Your task to perform on an android device: find photos in the google photos app Image 0: 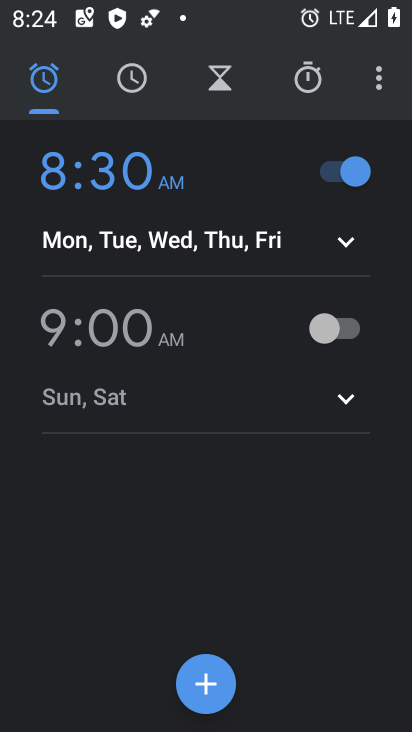
Step 0: press back button
Your task to perform on an android device: find photos in the google photos app Image 1: 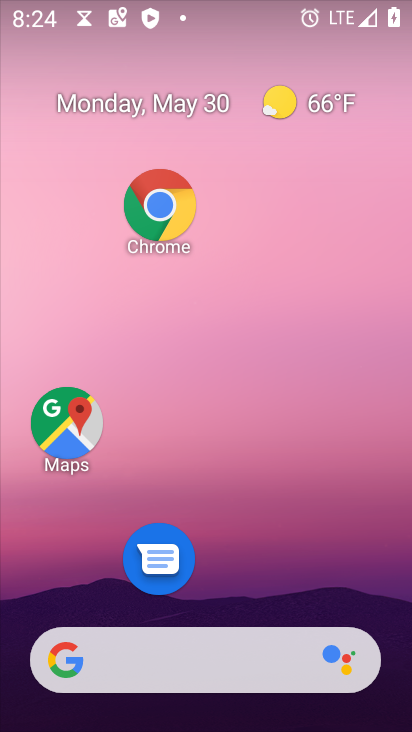
Step 1: drag from (270, 651) to (267, 399)
Your task to perform on an android device: find photos in the google photos app Image 2: 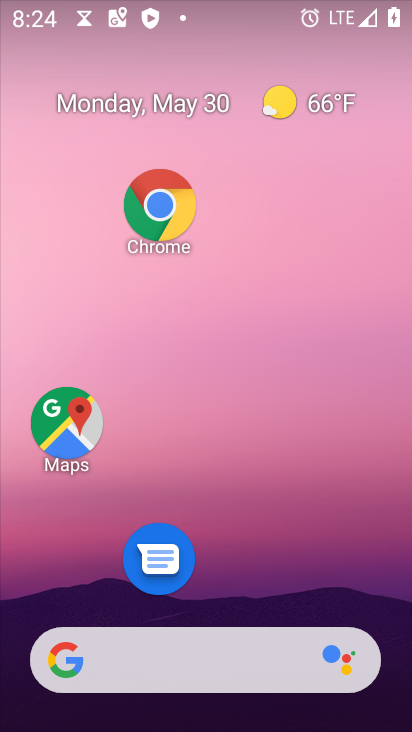
Step 2: drag from (271, 621) to (253, 247)
Your task to perform on an android device: find photos in the google photos app Image 3: 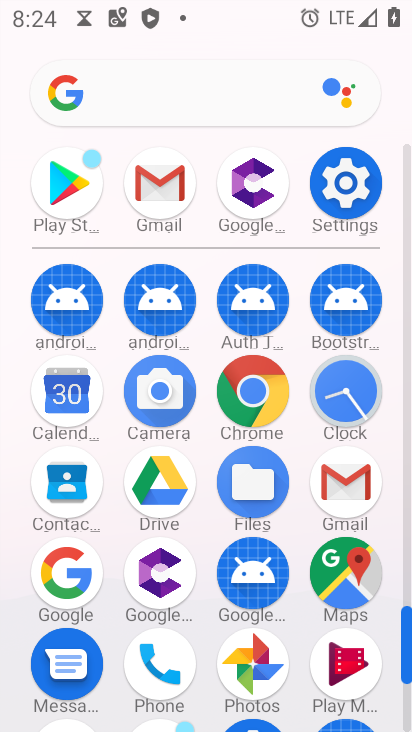
Step 3: click (253, 666)
Your task to perform on an android device: find photos in the google photos app Image 4: 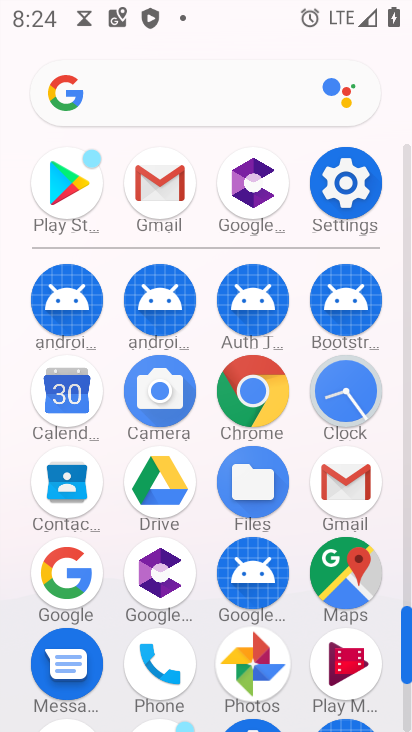
Step 4: click (252, 667)
Your task to perform on an android device: find photos in the google photos app Image 5: 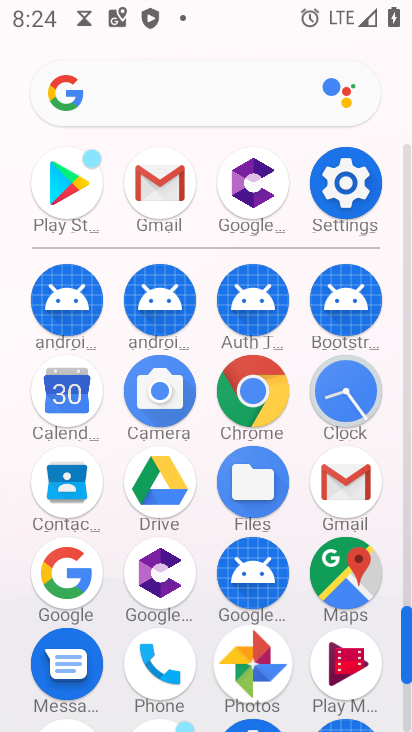
Step 5: click (252, 667)
Your task to perform on an android device: find photos in the google photos app Image 6: 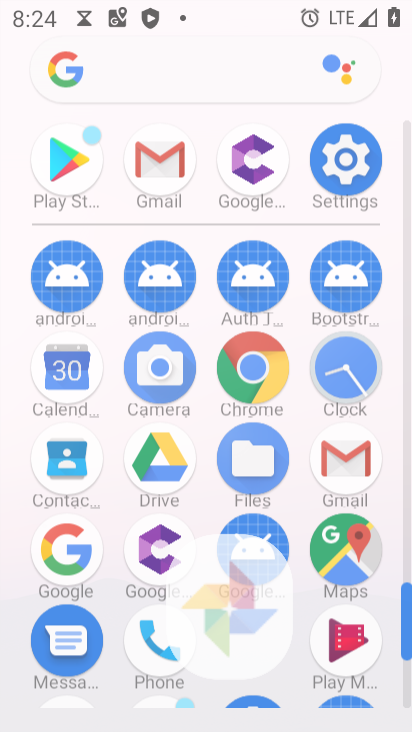
Step 6: click (252, 667)
Your task to perform on an android device: find photos in the google photos app Image 7: 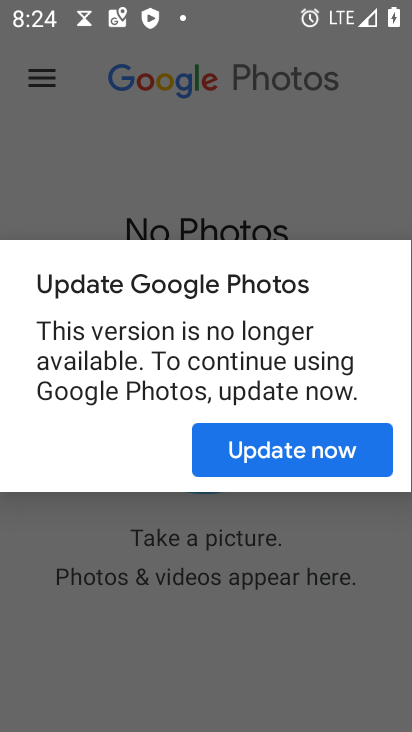
Step 7: press back button
Your task to perform on an android device: find photos in the google photos app Image 8: 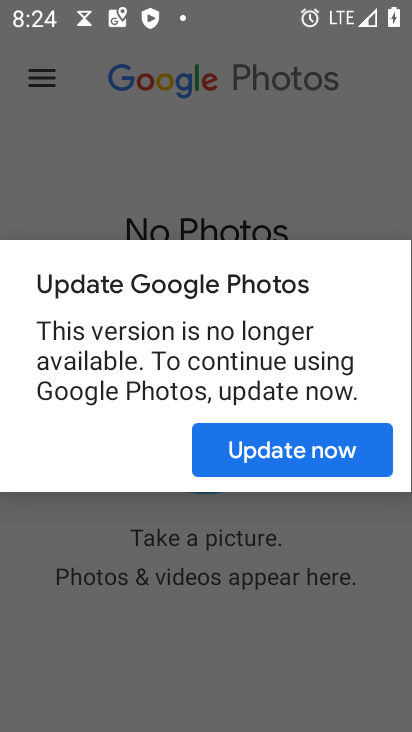
Step 8: press back button
Your task to perform on an android device: find photos in the google photos app Image 9: 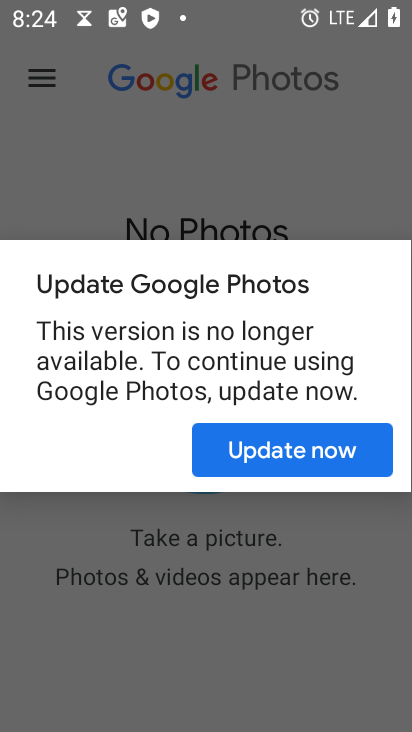
Step 9: press back button
Your task to perform on an android device: find photos in the google photos app Image 10: 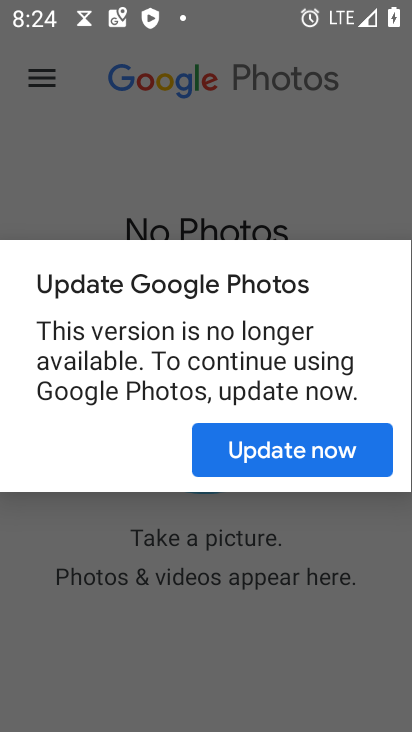
Step 10: press home button
Your task to perform on an android device: find photos in the google photos app Image 11: 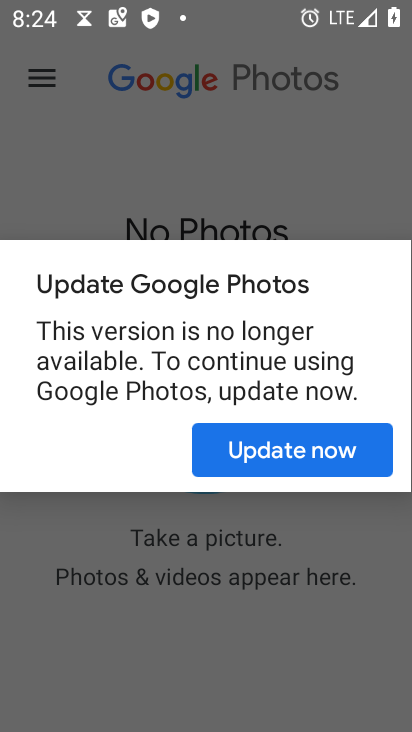
Step 11: press home button
Your task to perform on an android device: find photos in the google photos app Image 12: 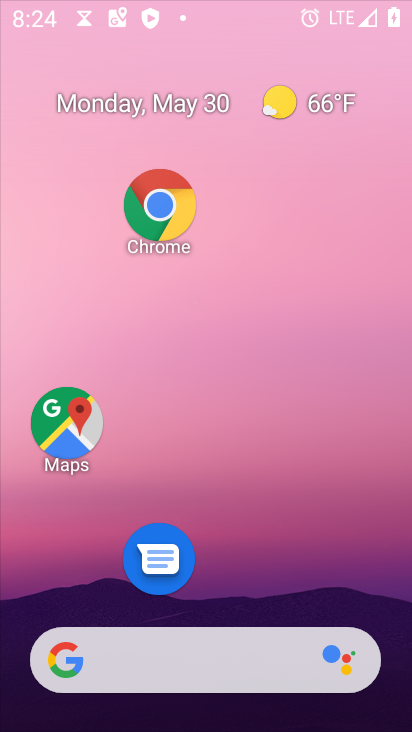
Step 12: press home button
Your task to perform on an android device: find photos in the google photos app Image 13: 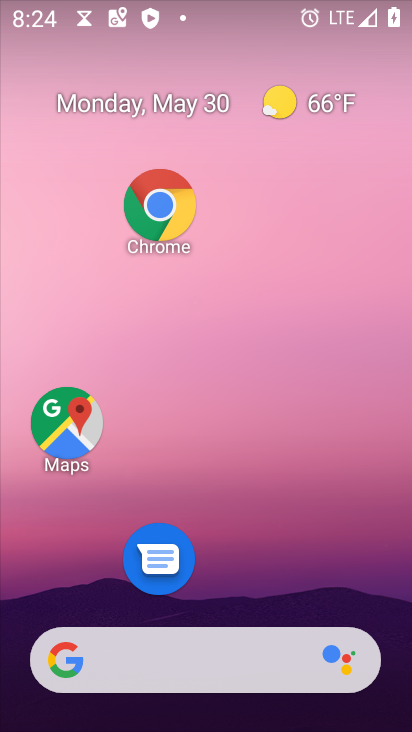
Step 13: drag from (247, 700) to (256, 46)
Your task to perform on an android device: find photos in the google photos app Image 14: 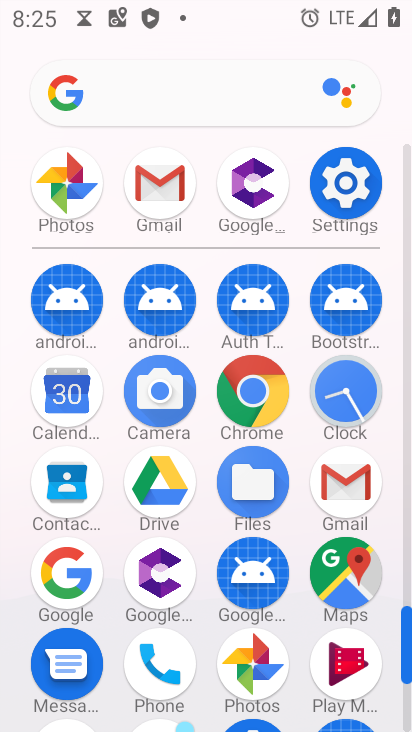
Step 14: click (259, 657)
Your task to perform on an android device: find photos in the google photos app Image 15: 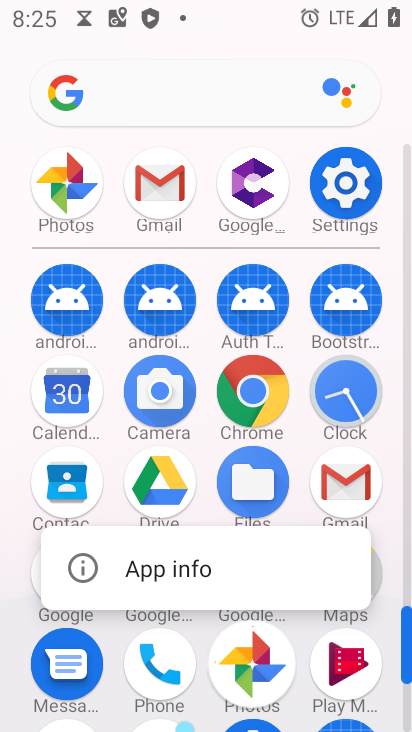
Step 15: click (256, 658)
Your task to perform on an android device: find photos in the google photos app Image 16: 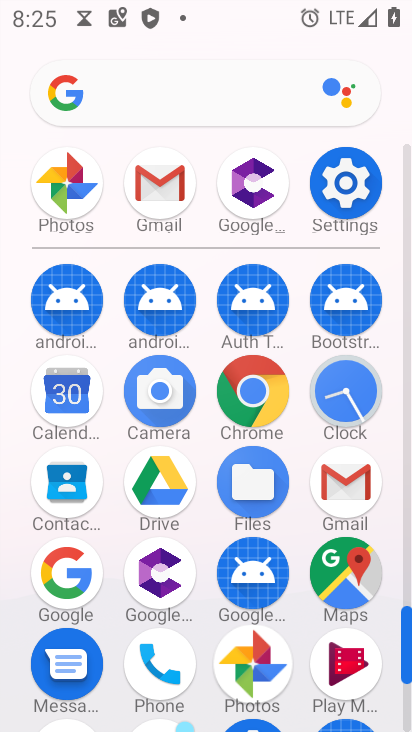
Step 16: click (241, 662)
Your task to perform on an android device: find photos in the google photos app Image 17: 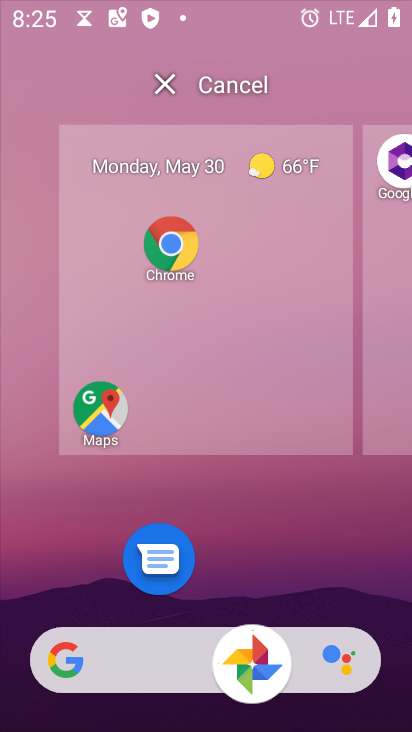
Step 17: click (220, 654)
Your task to perform on an android device: find photos in the google photos app Image 18: 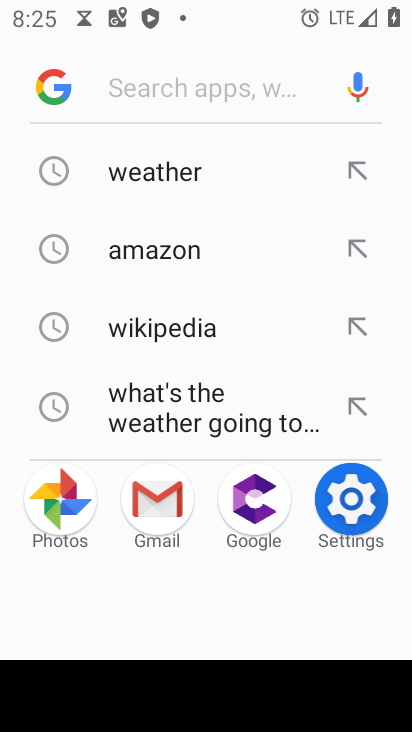
Step 18: press back button
Your task to perform on an android device: find photos in the google photos app Image 19: 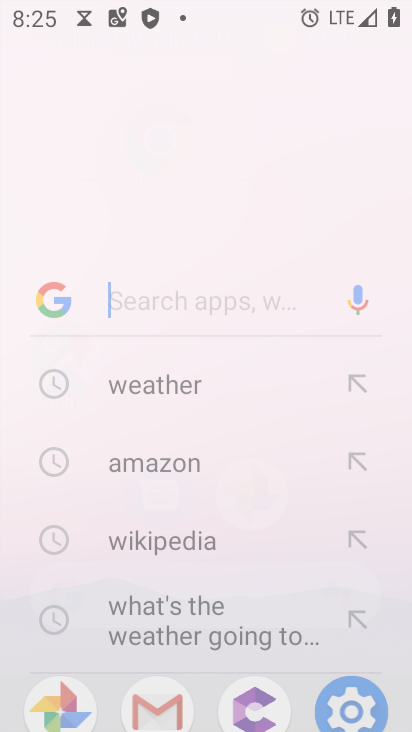
Step 19: press back button
Your task to perform on an android device: find photos in the google photos app Image 20: 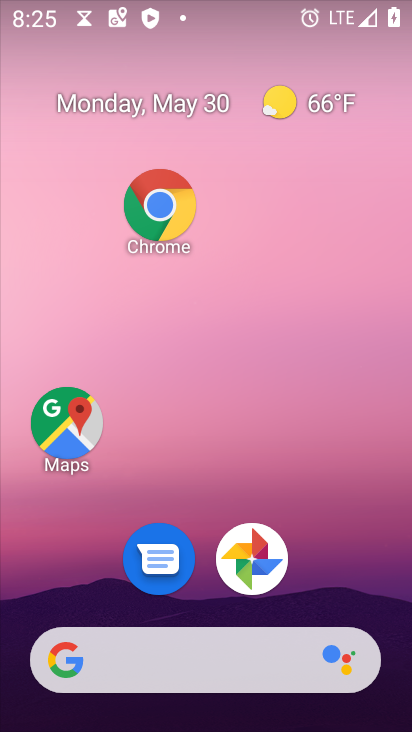
Step 20: drag from (322, 507) to (251, 385)
Your task to perform on an android device: find photos in the google photos app Image 21: 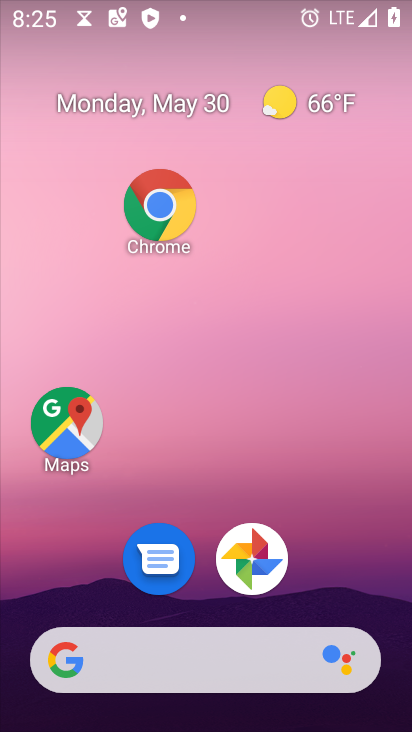
Step 21: drag from (238, 661) to (219, 391)
Your task to perform on an android device: find photos in the google photos app Image 22: 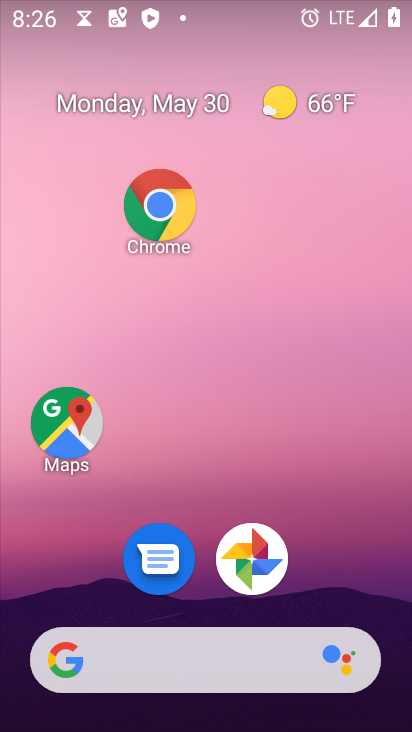
Step 22: drag from (237, 688) to (186, 235)
Your task to perform on an android device: find photos in the google photos app Image 23: 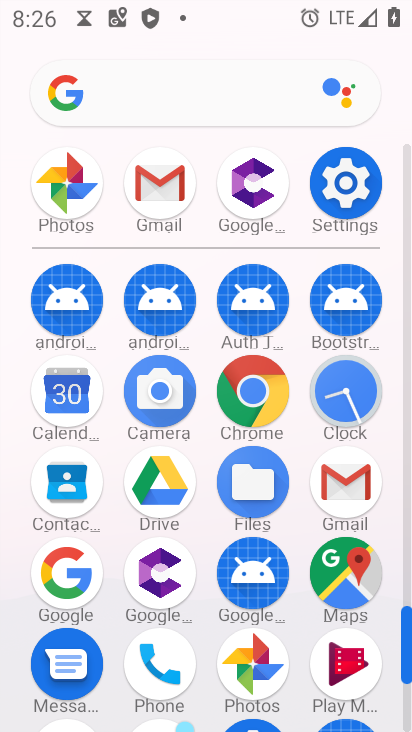
Step 23: click (252, 659)
Your task to perform on an android device: find photos in the google photos app Image 24: 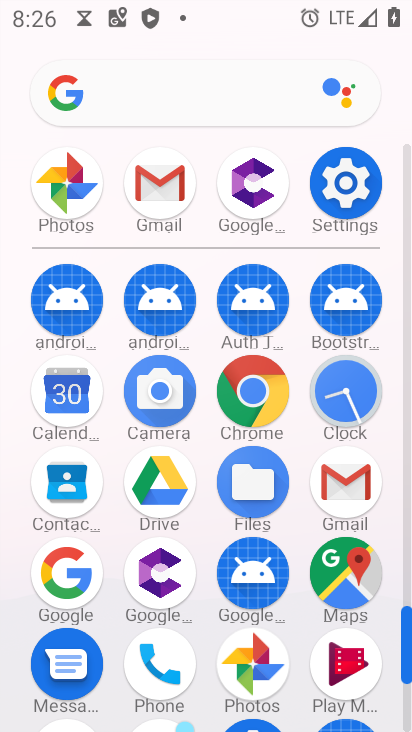
Step 24: click (252, 659)
Your task to perform on an android device: find photos in the google photos app Image 25: 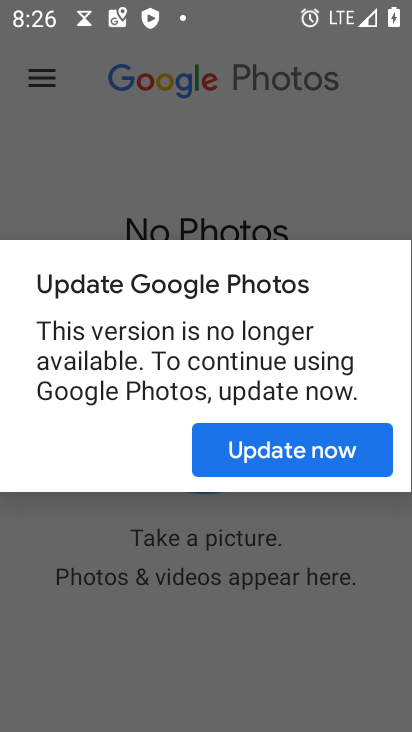
Step 25: click (334, 530)
Your task to perform on an android device: find photos in the google photos app Image 26: 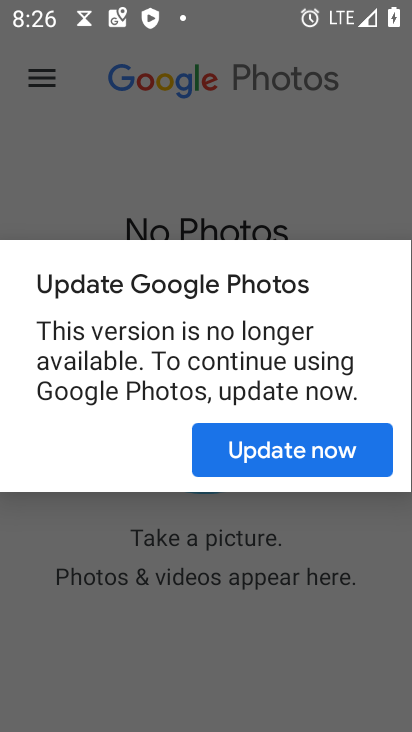
Step 26: click (335, 531)
Your task to perform on an android device: find photos in the google photos app Image 27: 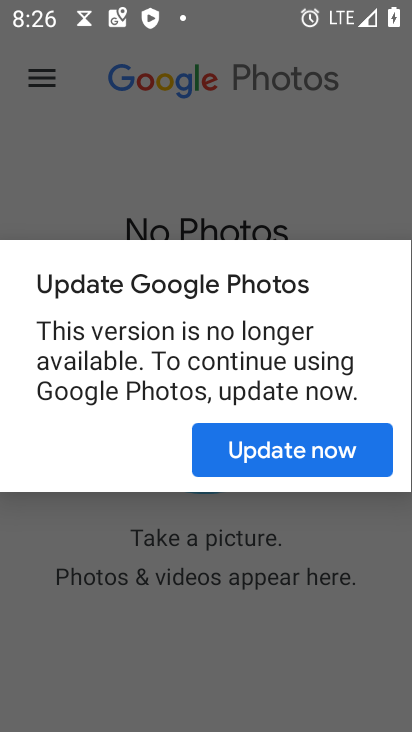
Step 27: click (335, 531)
Your task to perform on an android device: find photos in the google photos app Image 28: 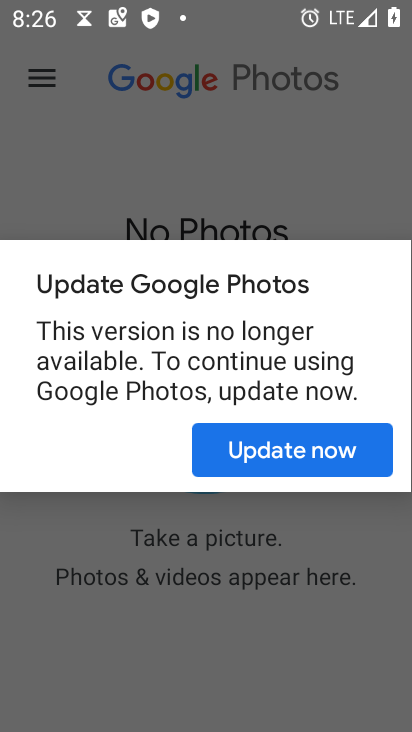
Step 28: click (334, 531)
Your task to perform on an android device: find photos in the google photos app Image 29: 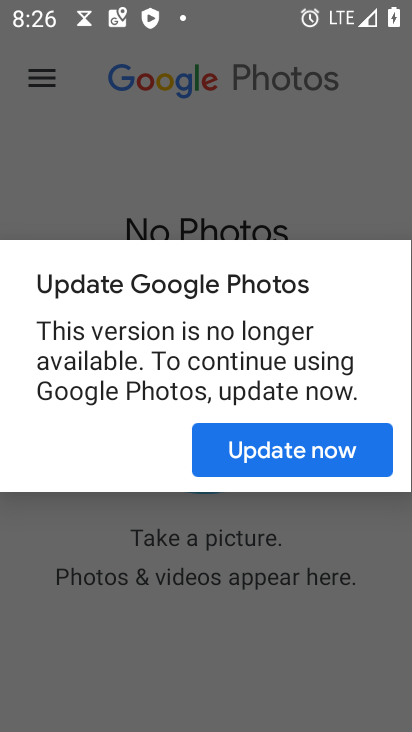
Step 29: click (280, 451)
Your task to perform on an android device: find photos in the google photos app Image 30: 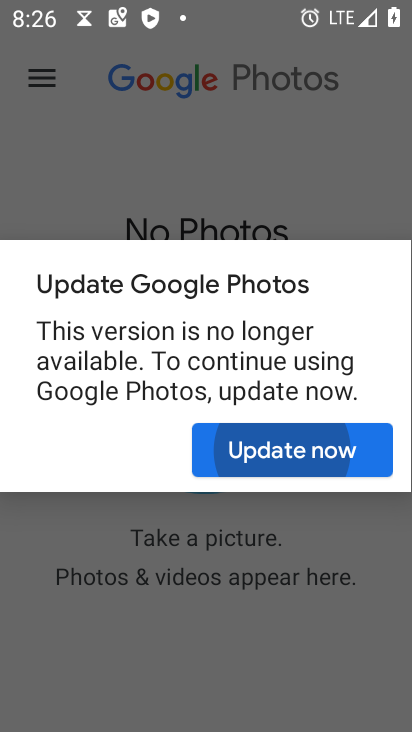
Step 30: click (280, 451)
Your task to perform on an android device: find photos in the google photos app Image 31: 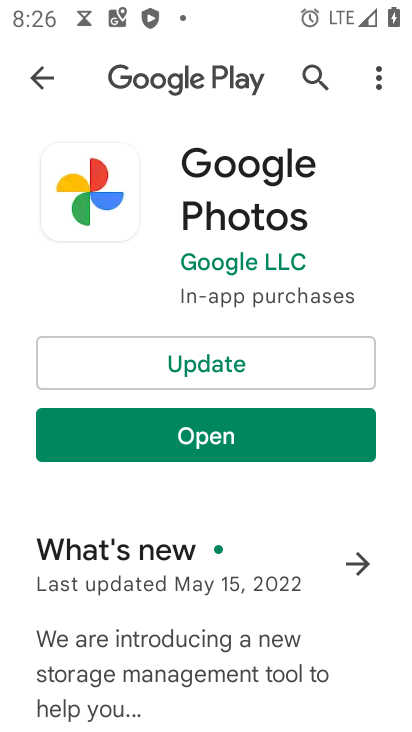
Step 31: click (201, 356)
Your task to perform on an android device: find photos in the google photos app Image 32: 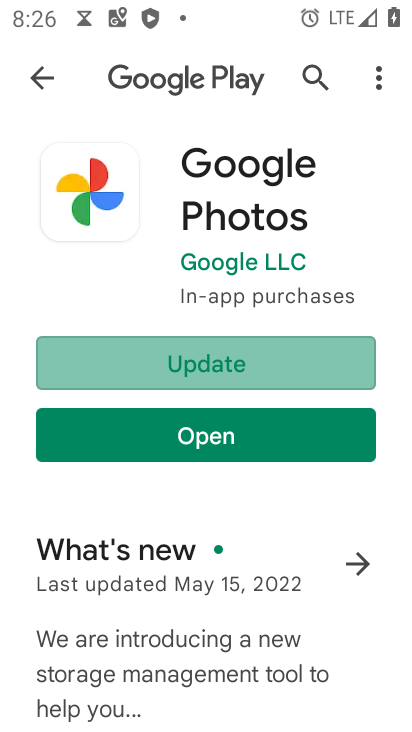
Step 32: click (205, 361)
Your task to perform on an android device: find photos in the google photos app Image 33: 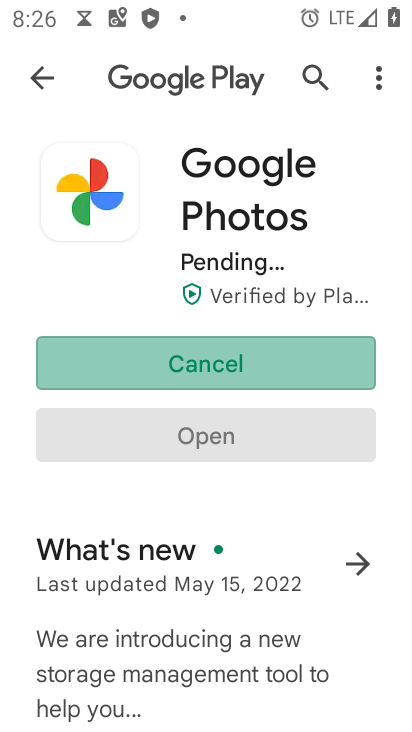
Step 33: click (205, 361)
Your task to perform on an android device: find photos in the google photos app Image 34: 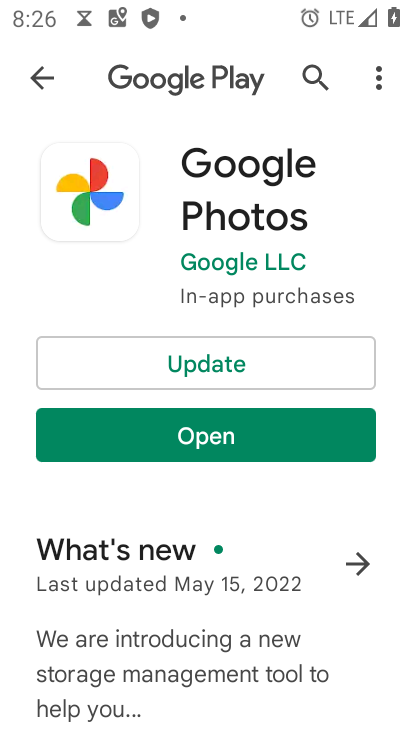
Step 34: click (220, 439)
Your task to perform on an android device: find photos in the google photos app Image 35: 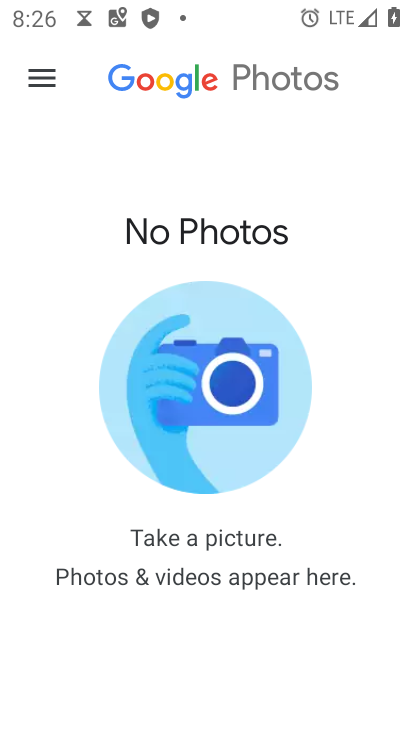
Step 35: task complete